Your task to perform on an android device: Open the Play Movies app and select the watchlist tab. Image 0: 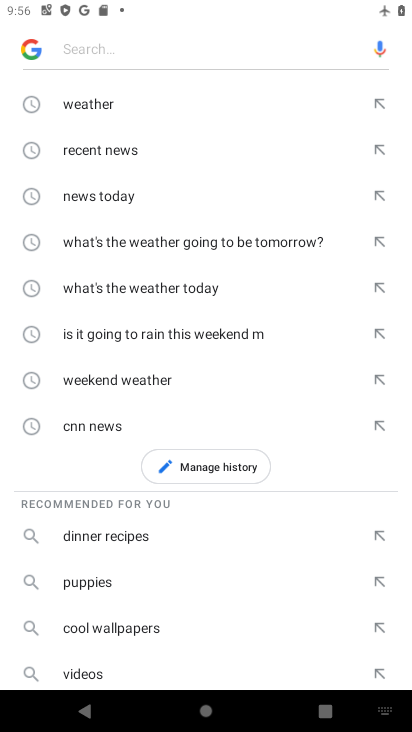
Step 0: press home button
Your task to perform on an android device: Open the Play Movies app and select the watchlist tab. Image 1: 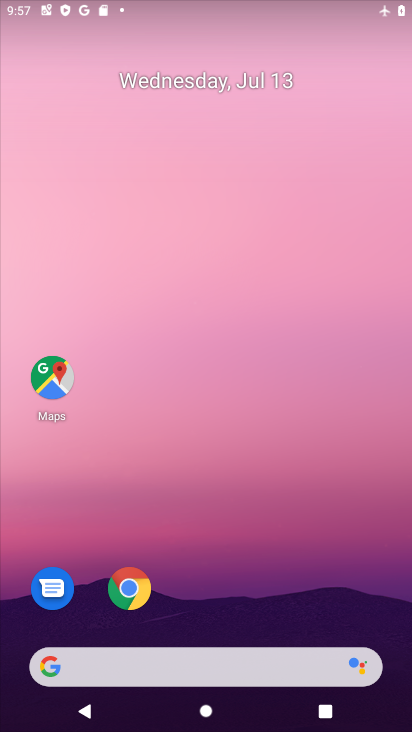
Step 1: drag from (266, 523) to (252, 38)
Your task to perform on an android device: Open the Play Movies app and select the watchlist tab. Image 2: 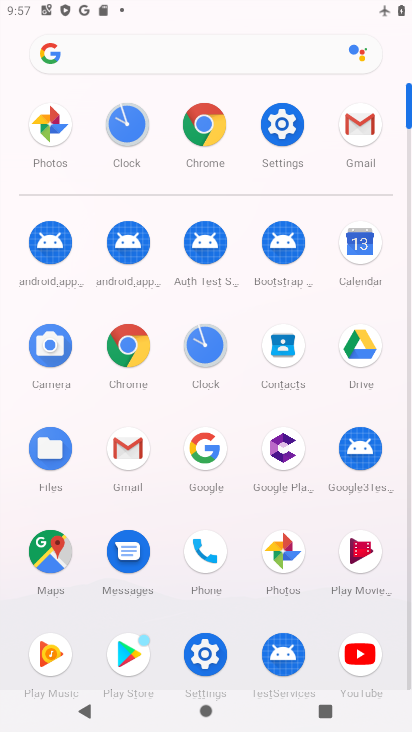
Step 2: click (363, 544)
Your task to perform on an android device: Open the Play Movies app and select the watchlist tab. Image 3: 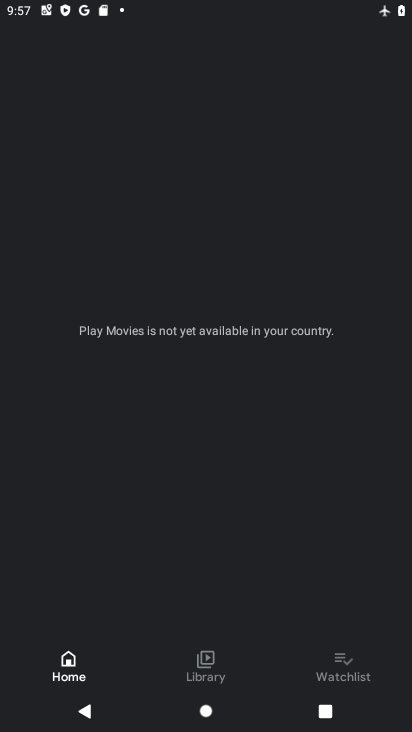
Step 3: click (339, 674)
Your task to perform on an android device: Open the Play Movies app and select the watchlist tab. Image 4: 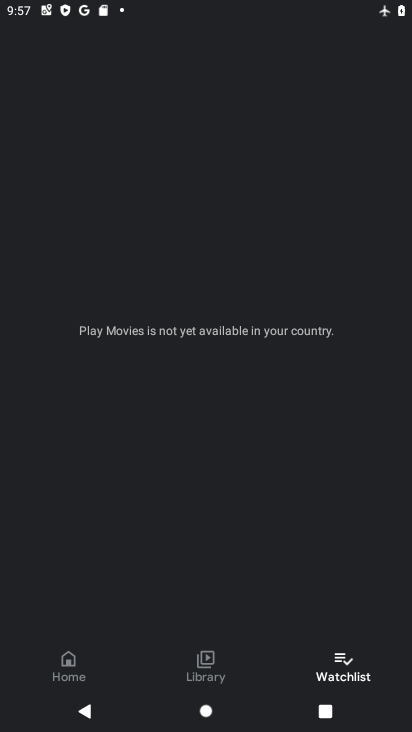
Step 4: task complete